Your task to perform on an android device: Find coffee shops on Maps Image 0: 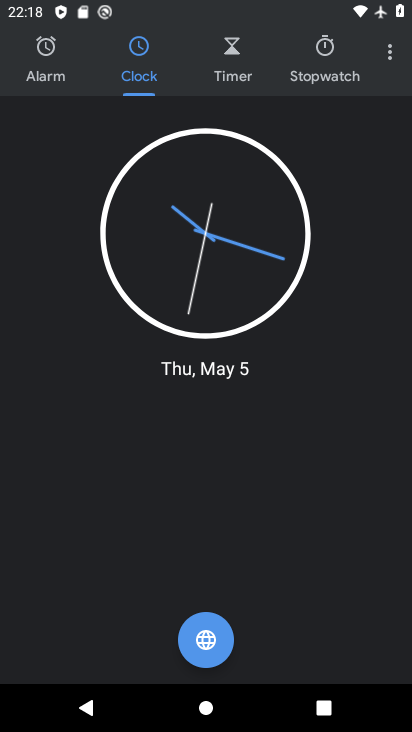
Step 0: press home button
Your task to perform on an android device: Find coffee shops on Maps Image 1: 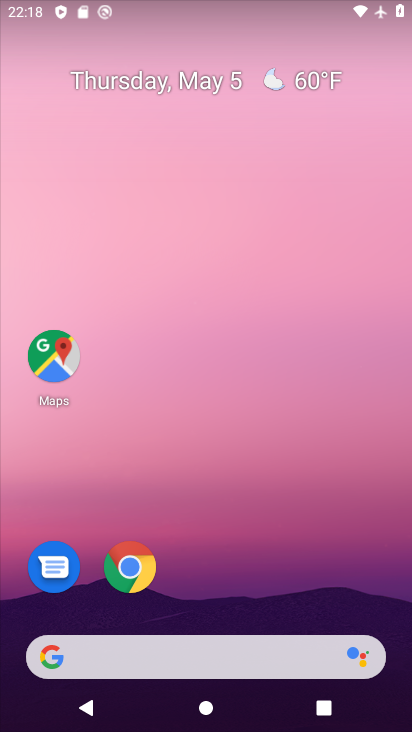
Step 1: click (72, 360)
Your task to perform on an android device: Find coffee shops on Maps Image 2: 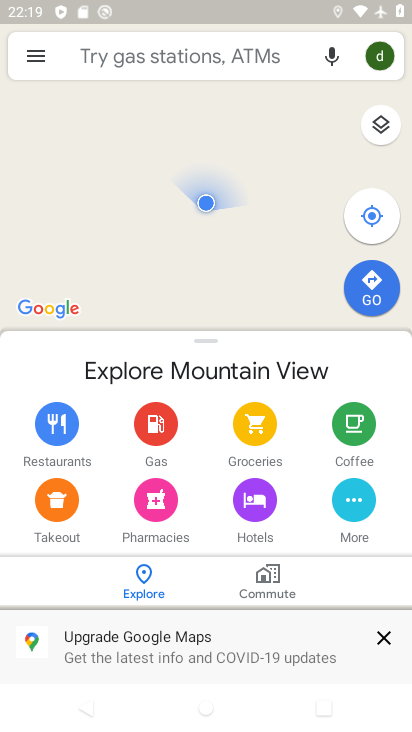
Step 2: click (250, 56)
Your task to perform on an android device: Find coffee shops on Maps Image 3: 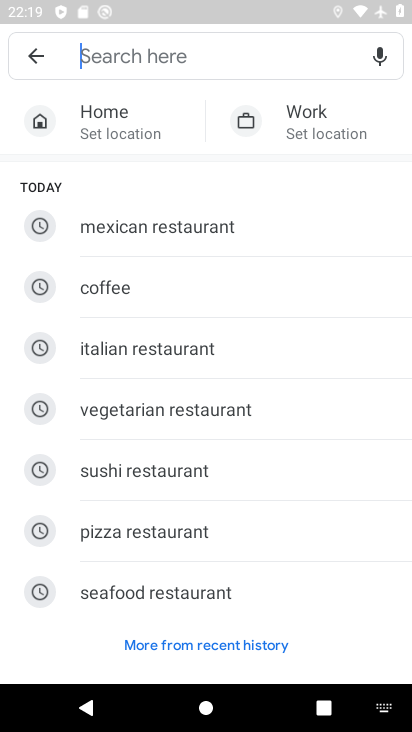
Step 3: type "coffee shops"
Your task to perform on an android device: Find coffee shops on Maps Image 4: 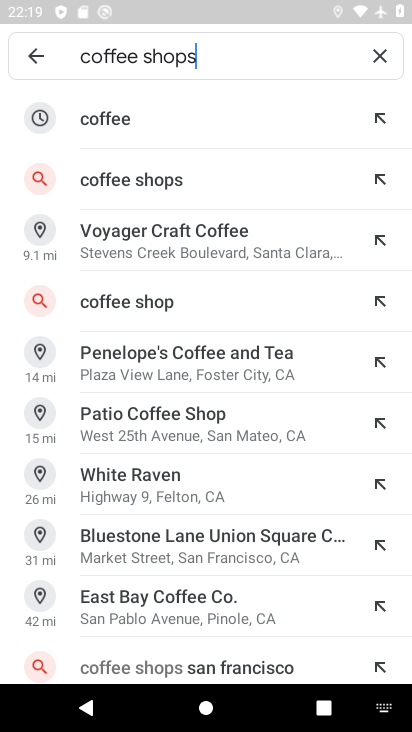
Step 4: click (163, 178)
Your task to perform on an android device: Find coffee shops on Maps Image 5: 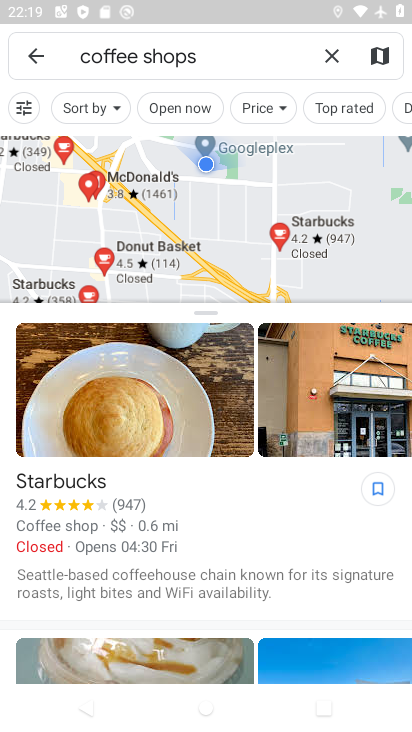
Step 5: task complete